Your task to perform on an android device: turn off picture-in-picture Image 0: 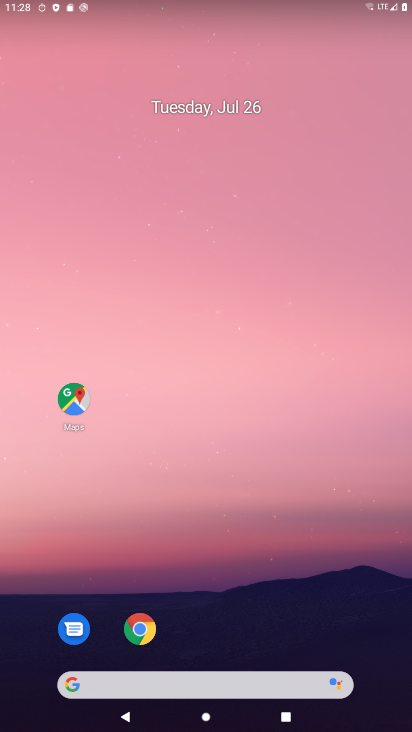
Step 0: drag from (387, 640) to (180, 10)
Your task to perform on an android device: turn off picture-in-picture Image 1: 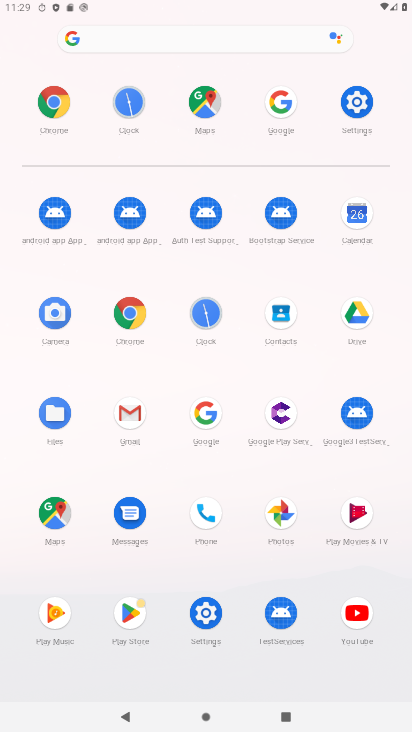
Step 1: click (149, 323)
Your task to perform on an android device: turn off picture-in-picture Image 2: 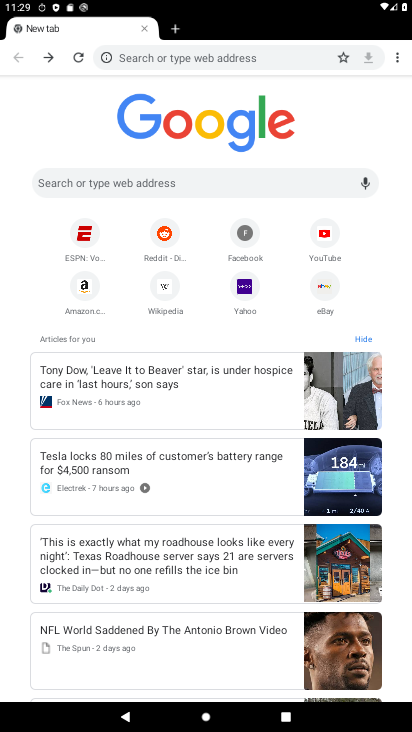
Step 2: task complete